Your task to perform on an android device: Open Chrome and go to the settings page Image 0: 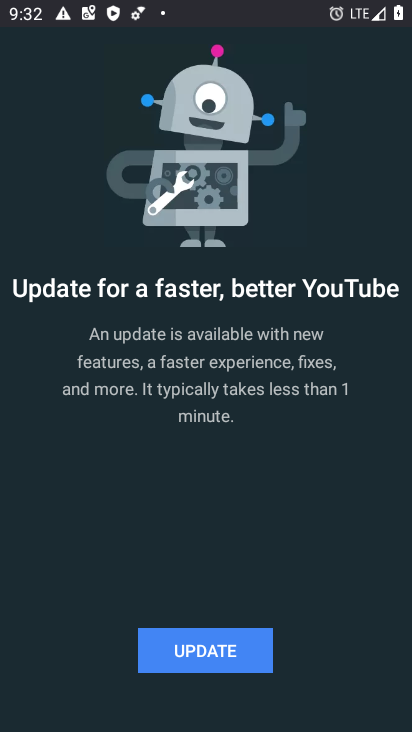
Step 0: press home button
Your task to perform on an android device: Open Chrome and go to the settings page Image 1: 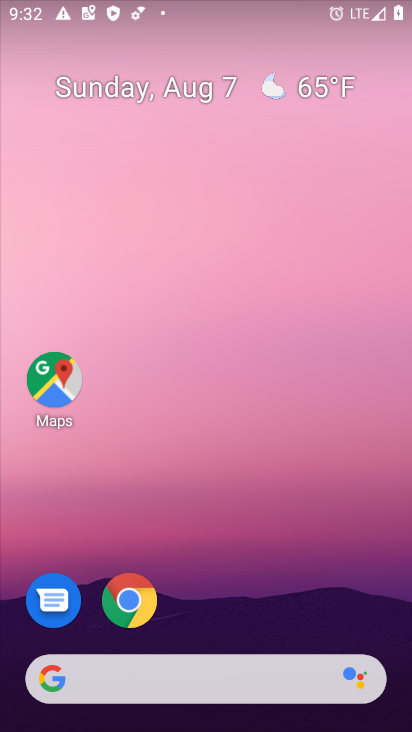
Step 1: click (126, 607)
Your task to perform on an android device: Open Chrome and go to the settings page Image 2: 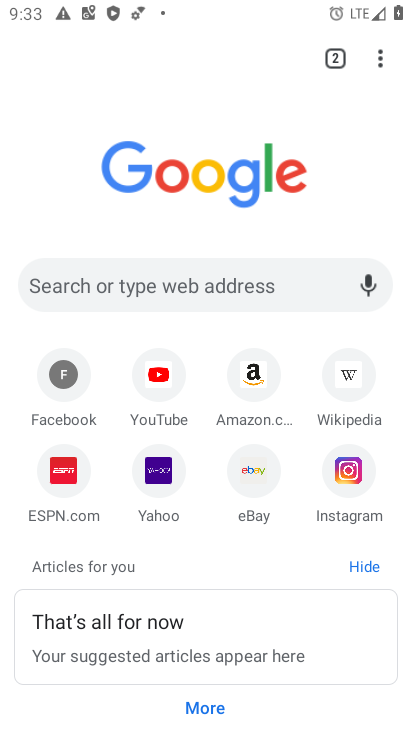
Step 2: click (380, 56)
Your task to perform on an android device: Open Chrome and go to the settings page Image 3: 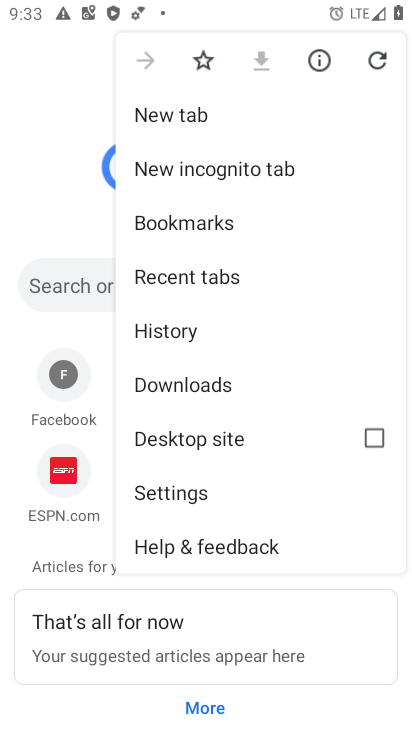
Step 3: click (203, 501)
Your task to perform on an android device: Open Chrome and go to the settings page Image 4: 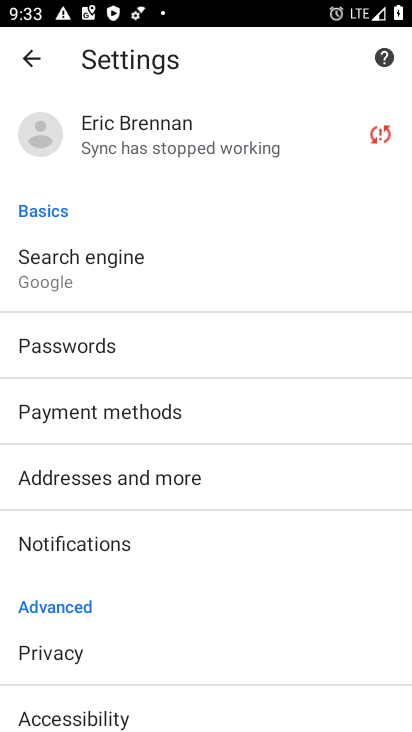
Step 4: task complete